Your task to perform on an android device: change notifications settings Image 0: 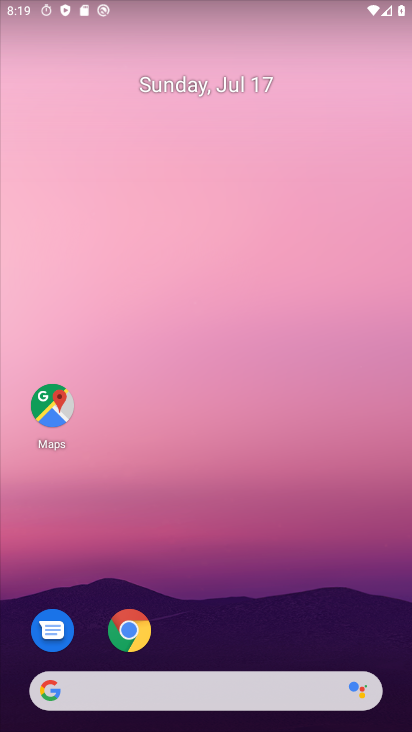
Step 0: drag from (149, 424) to (214, 268)
Your task to perform on an android device: change notifications settings Image 1: 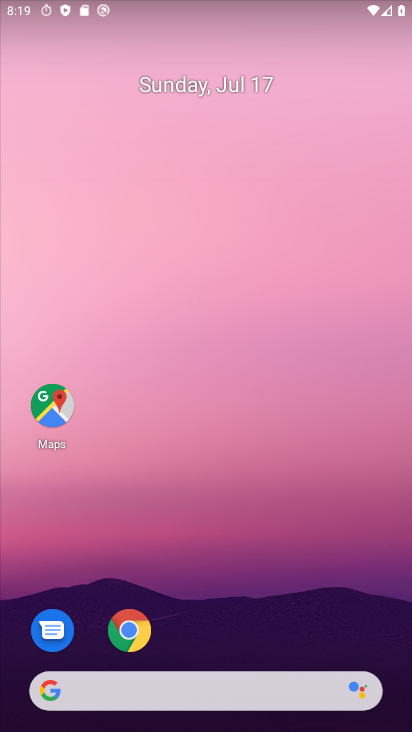
Step 1: drag from (18, 706) to (286, 69)
Your task to perform on an android device: change notifications settings Image 2: 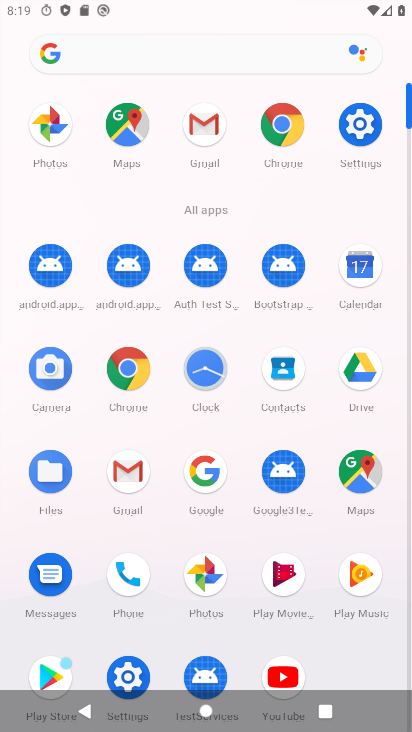
Step 2: click (130, 666)
Your task to perform on an android device: change notifications settings Image 3: 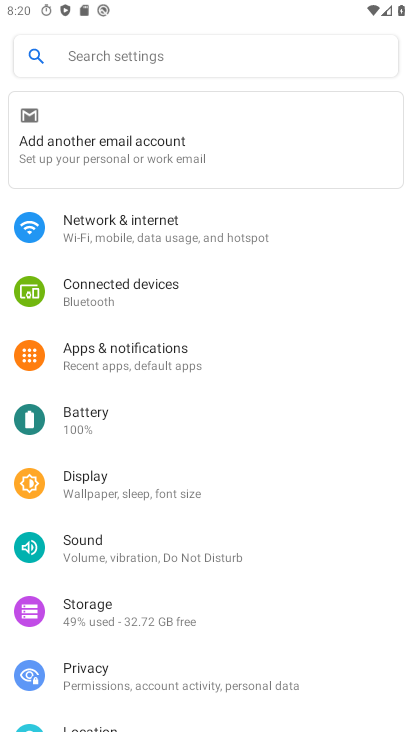
Step 3: click (166, 357)
Your task to perform on an android device: change notifications settings Image 4: 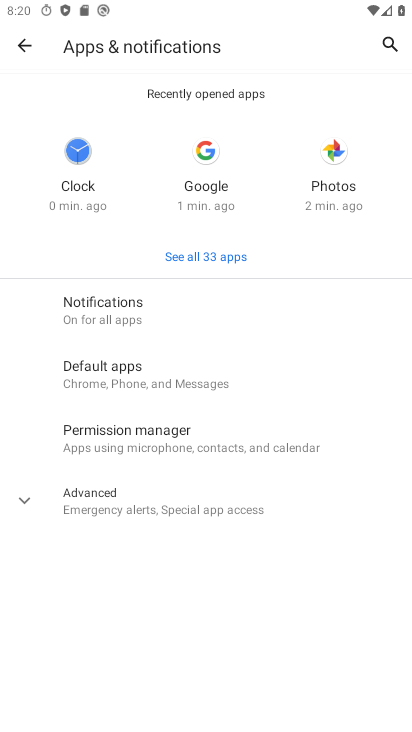
Step 4: task complete